Your task to perform on an android device: Add sony triple a to the cart on costco, then select checkout. Image 0: 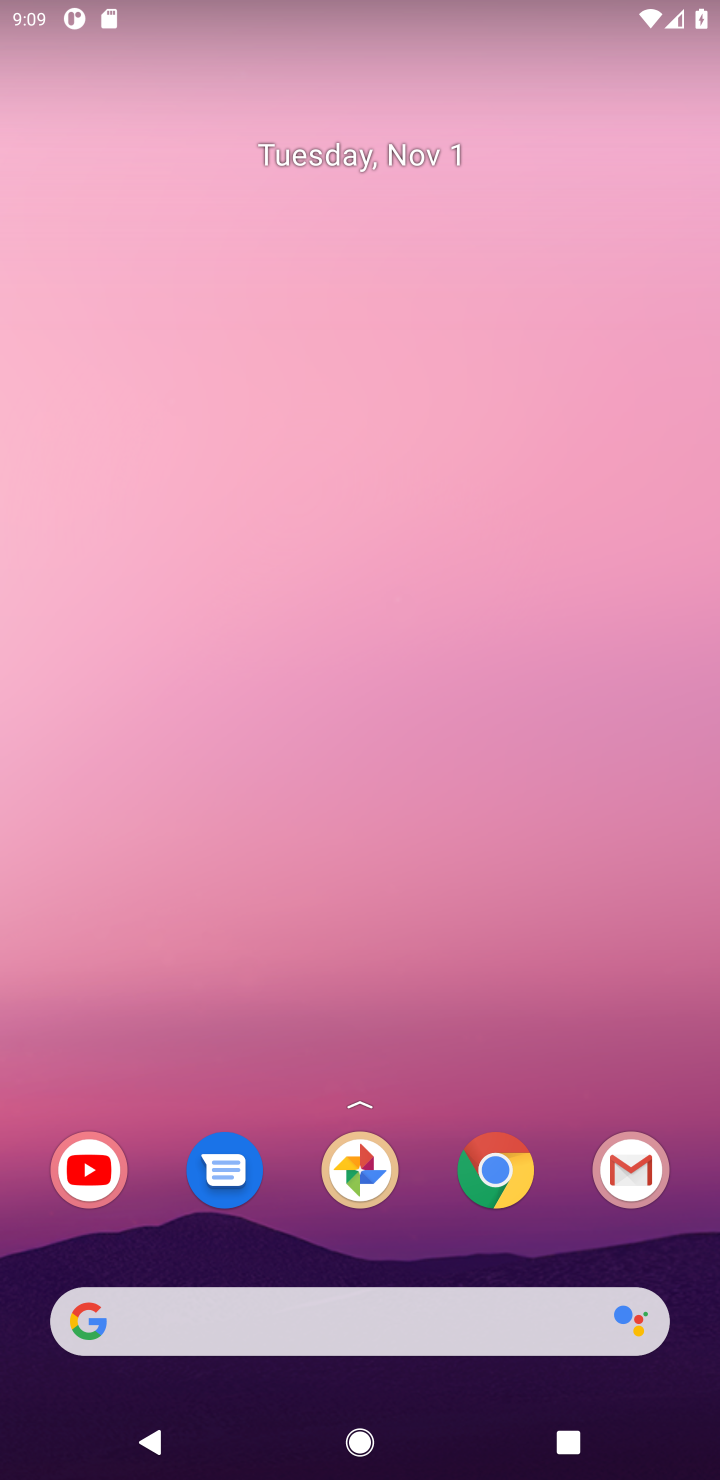
Step 0: click (505, 1194)
Your task to perform on an android device: Add sony triple a to the cart on costco, then select checkout. Image 1: 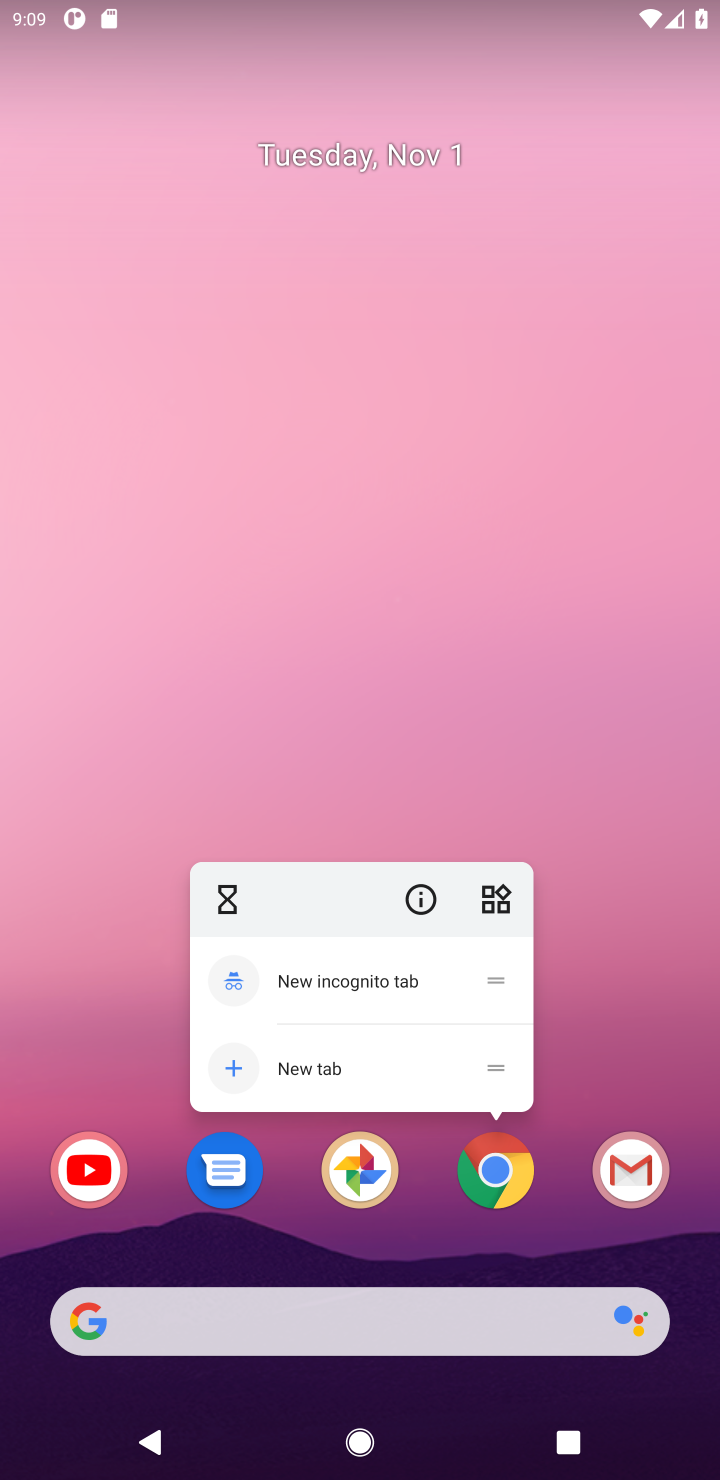
Step 1: click (496, 1201)
Your task to perform on an android device: Add sony triple a to the cart on costco, then select checkout. Image 2: 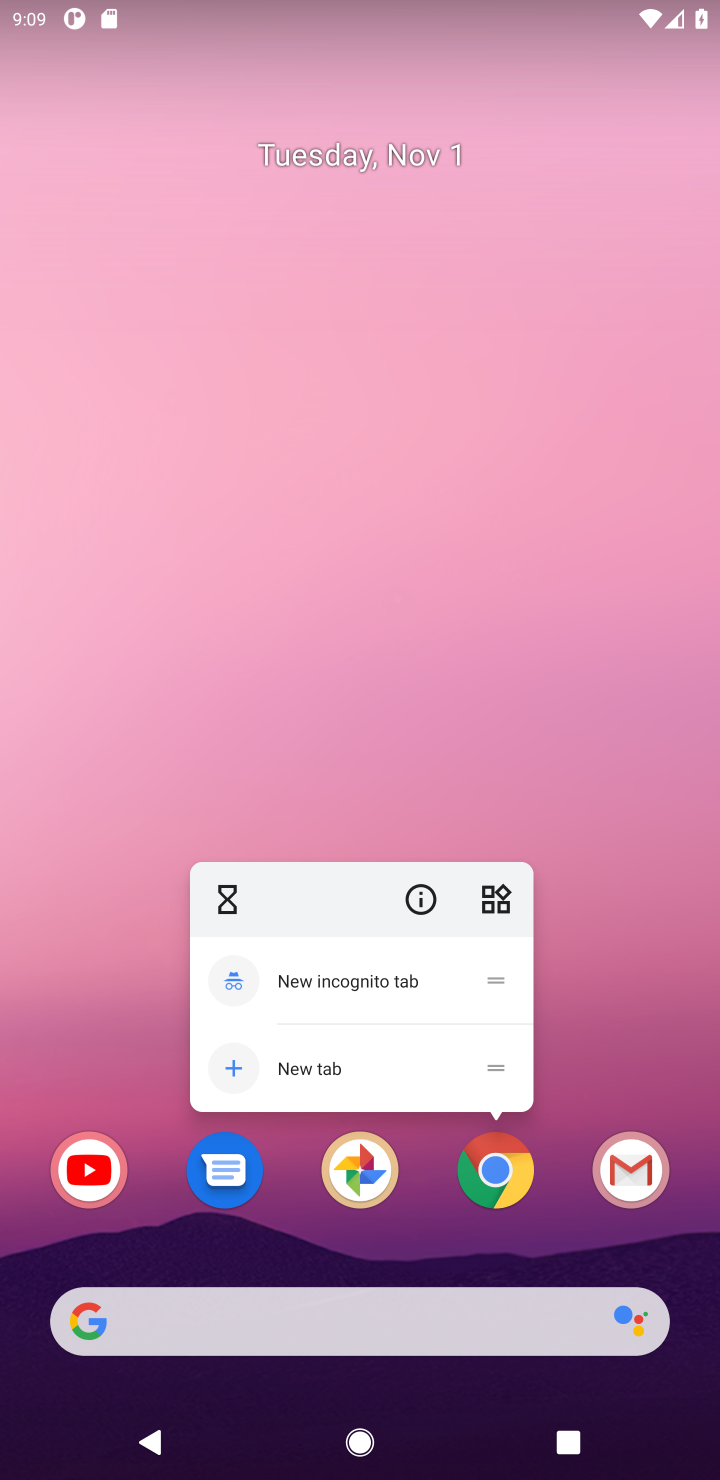
Step 2: click (495, 1168)
Your task to perform on an android device: Add sony triple a to the cart on costco, then select checkout. Image 3: 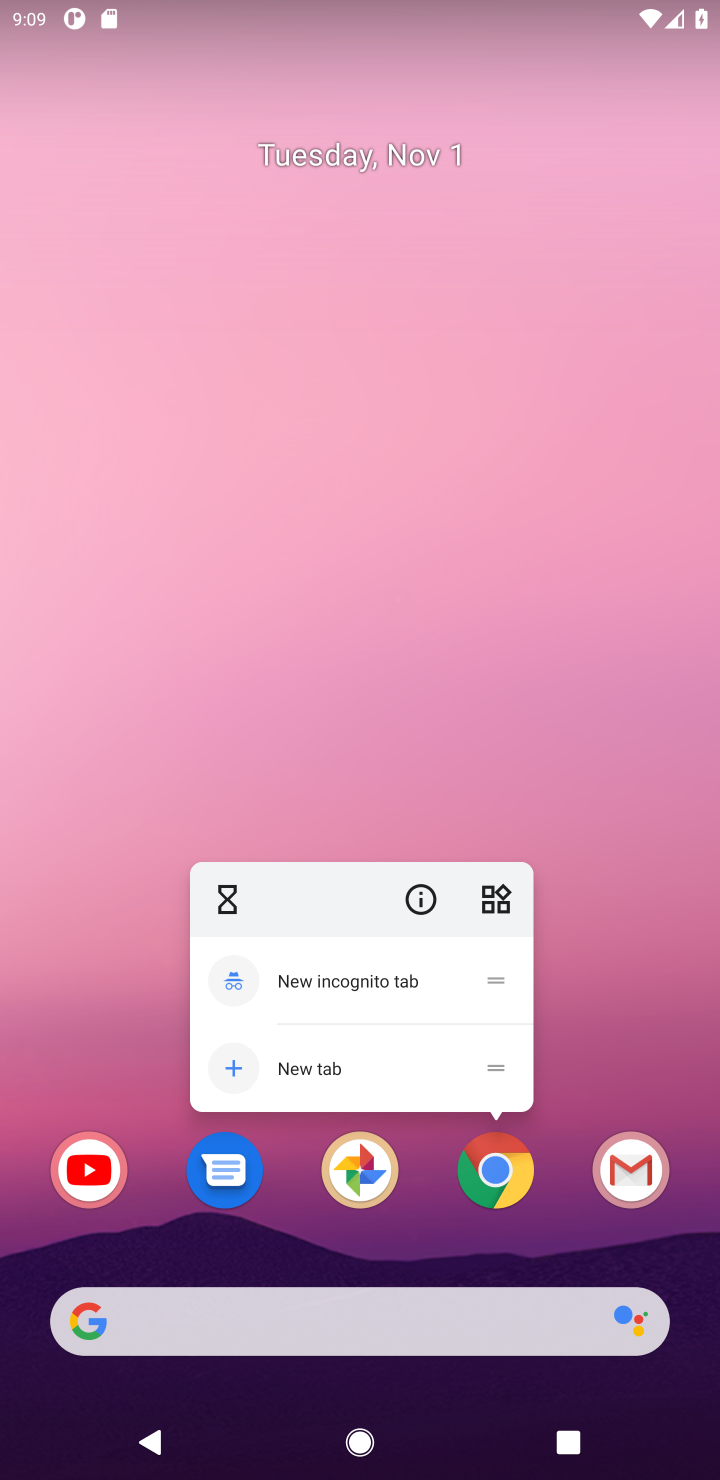
Step 3: click (493, 1185)
Your task to perform on an android device: Add sony triple a to the cart on costco, then select checkout. Image 4: 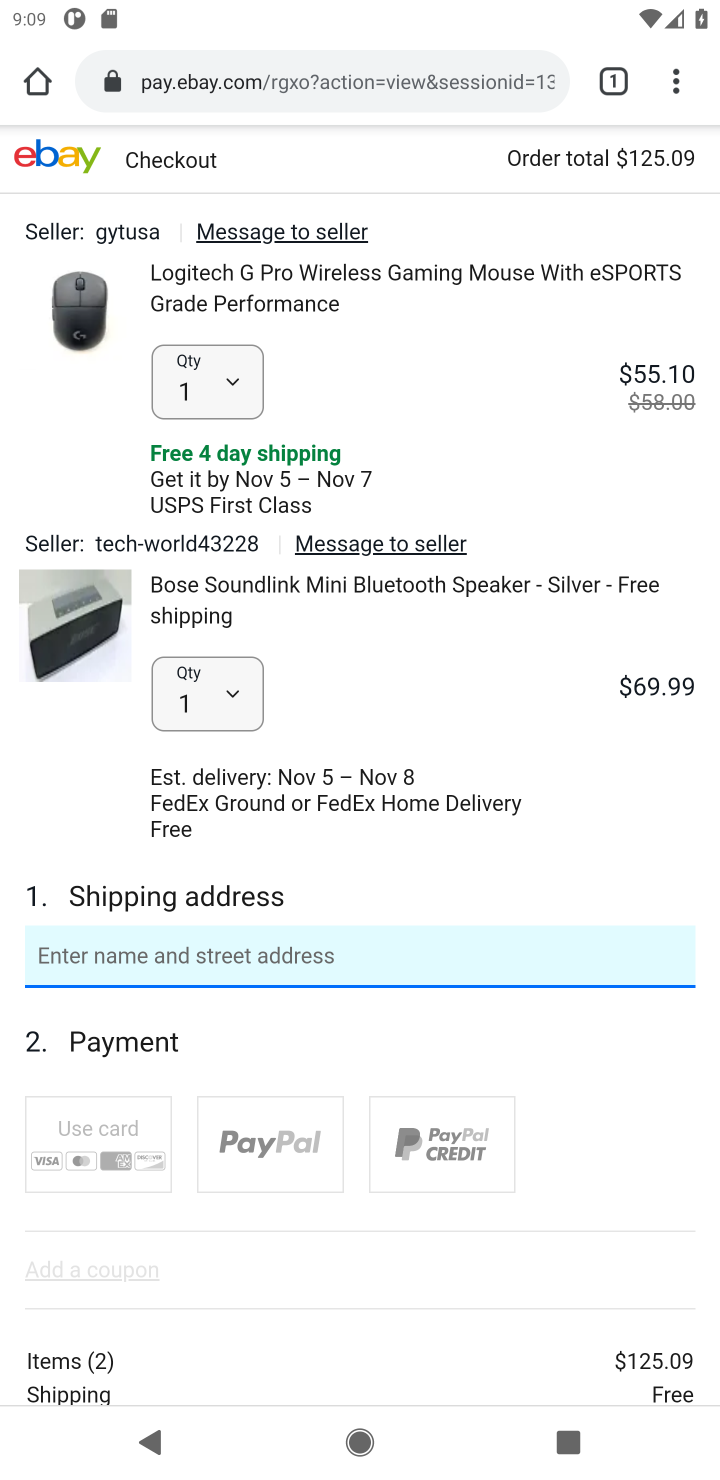
Step 4: click (343, 95)
Your task to perform on an android device: Add sony triple a to the cart on costco, then select checkout. Image 5: 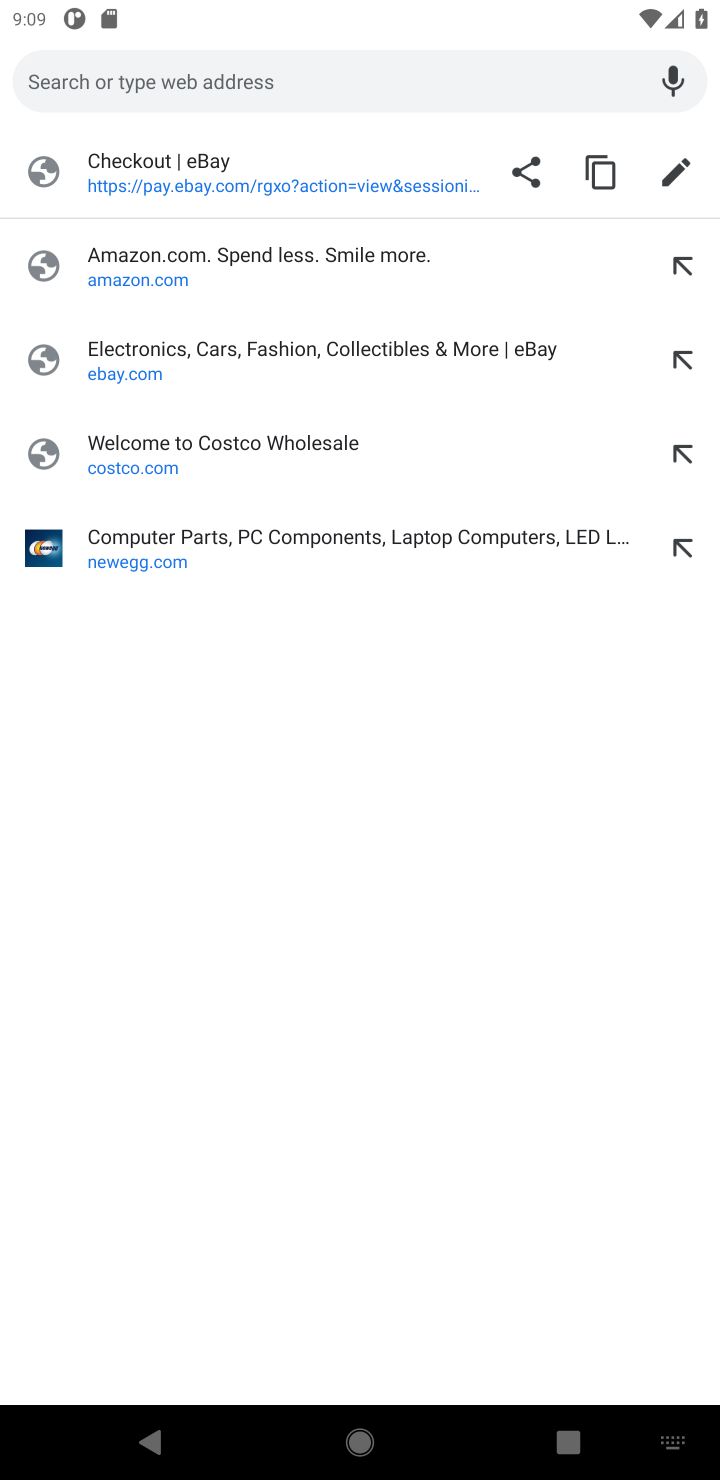
Step 5: type "costco"
Your task to perform on an android device: Add sony triple a to the cart on costco, then select checkout. Image 6: 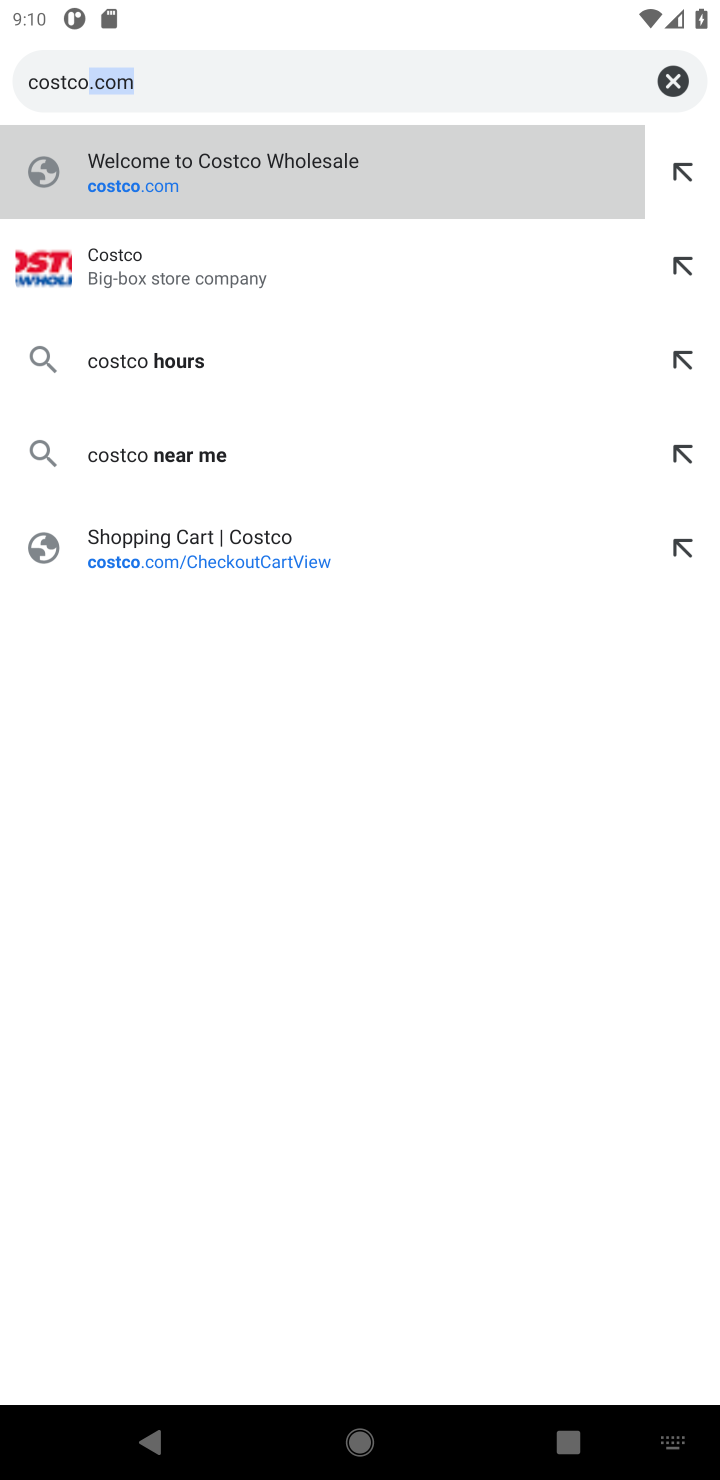
Step 6: press enter
Your task to perform on an android device: Add sony triple a to the cart on costco, then select checkout. Image 7: 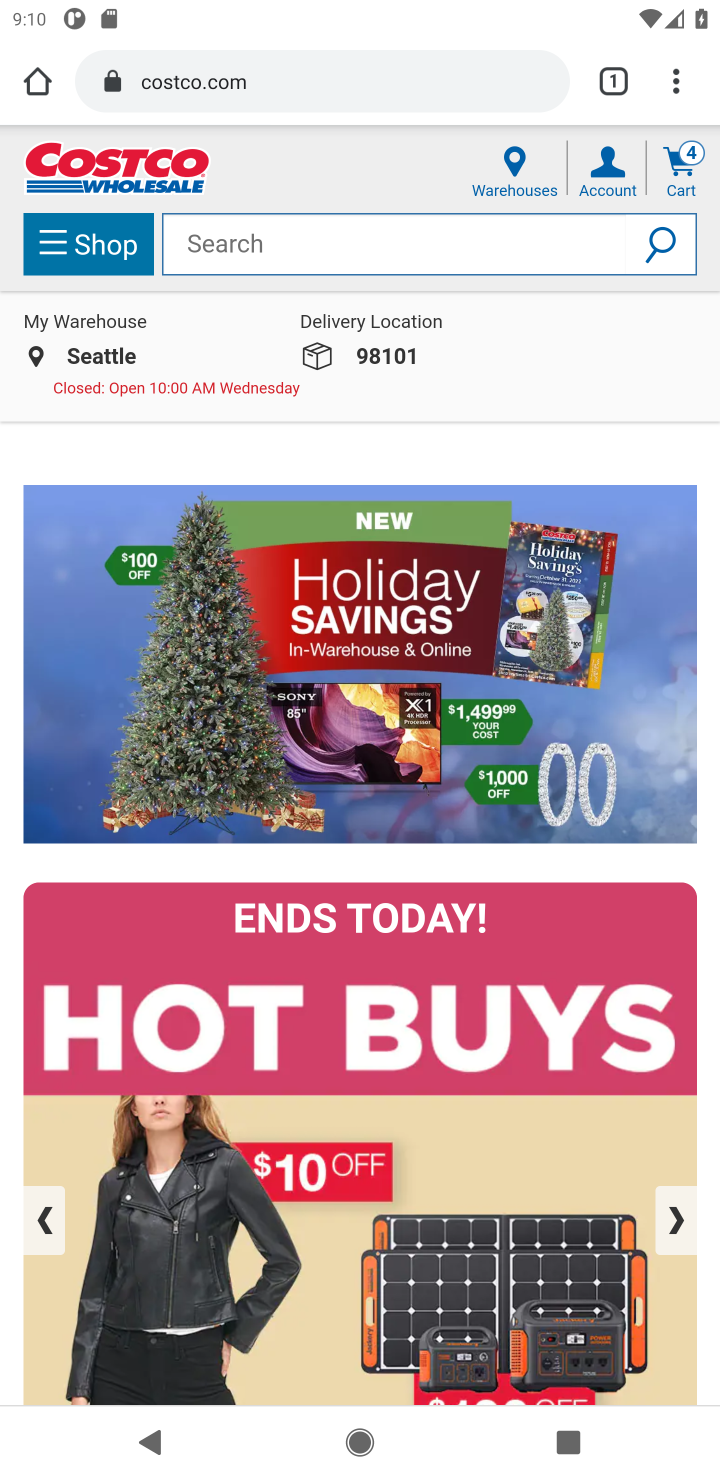
Step 7: click (430, 221)
Your task to perform on an android device: Add sony triple a to the cart on costco, then select checkout. Image 8: 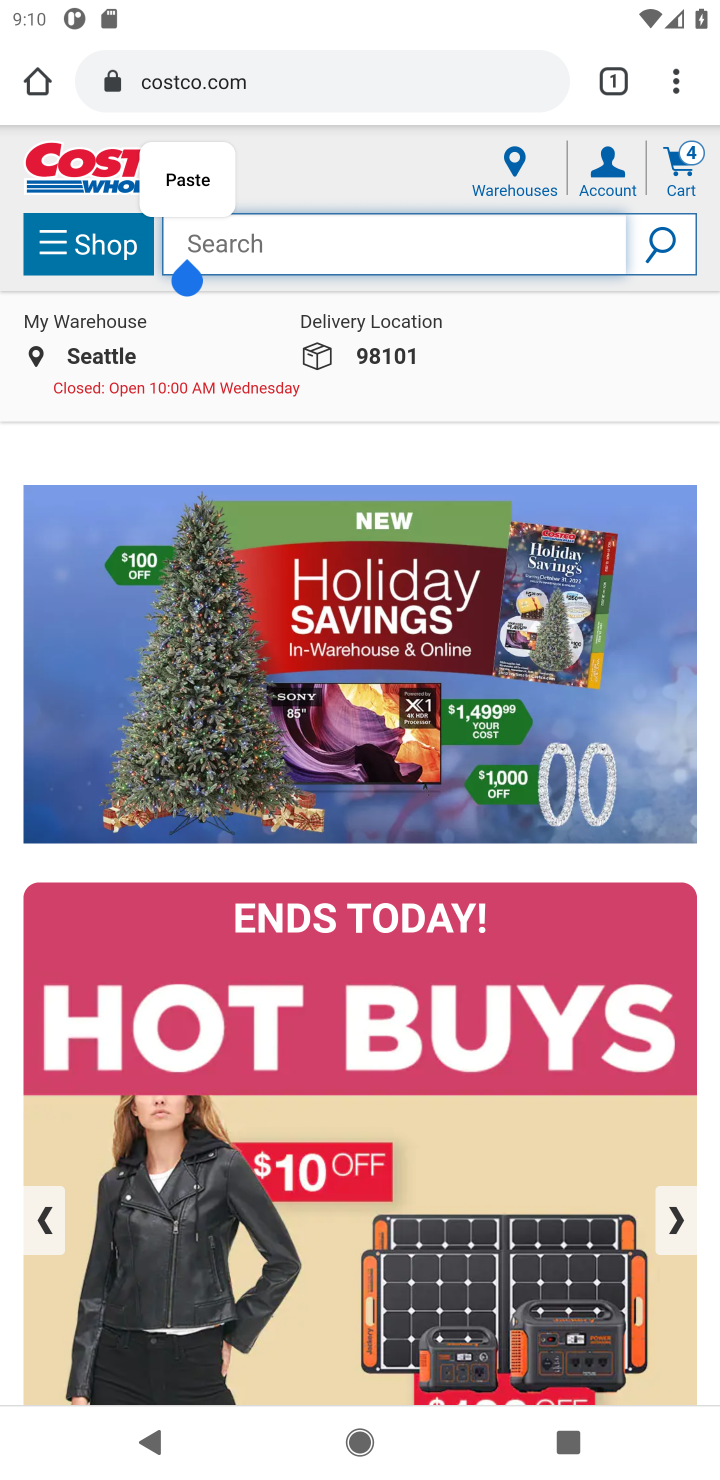
Step 8: type "sony triple a"
Your task to perform on an android device: Add sony triple a to the cart on costco, then select checkout. Image 9: 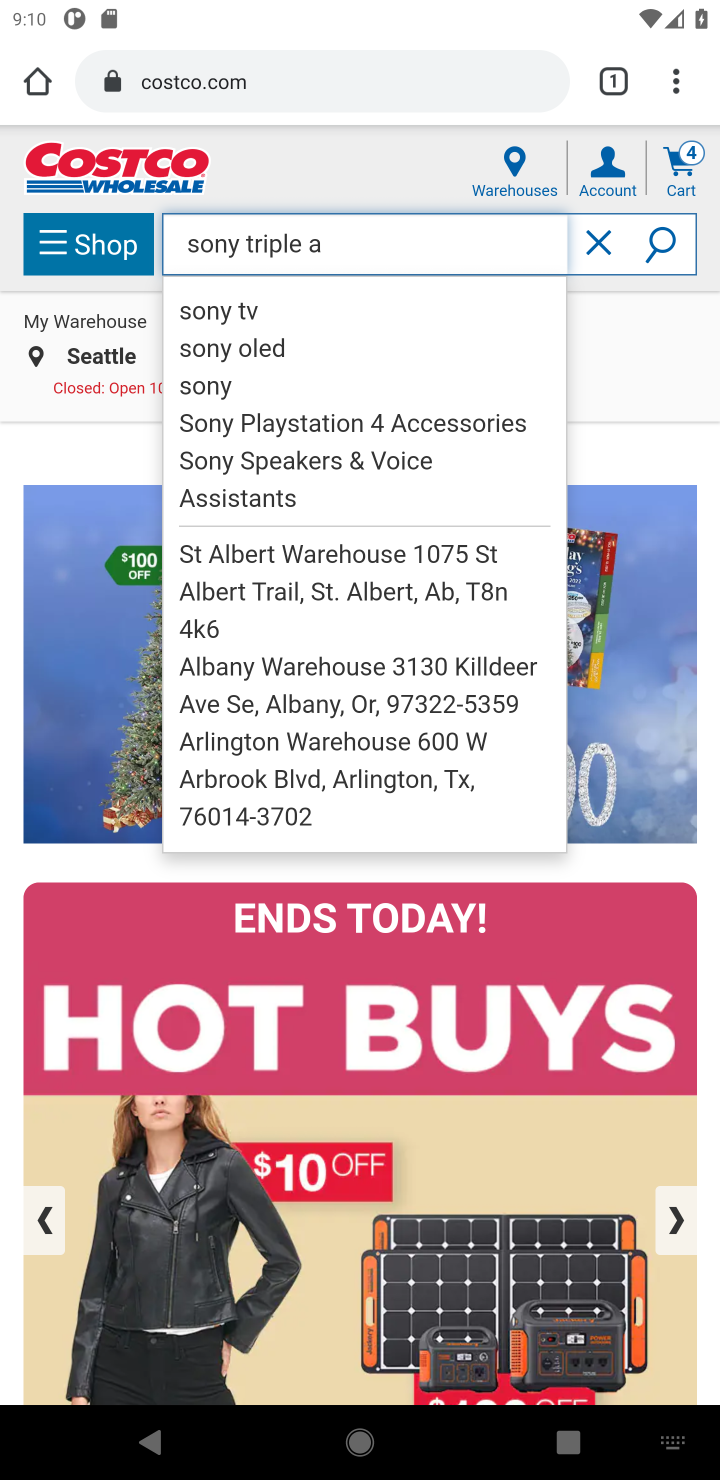
Step 9: press enter
Your task to perform on an android device: Add sony triple a to the cart on costco, then select checkout. Image 10: 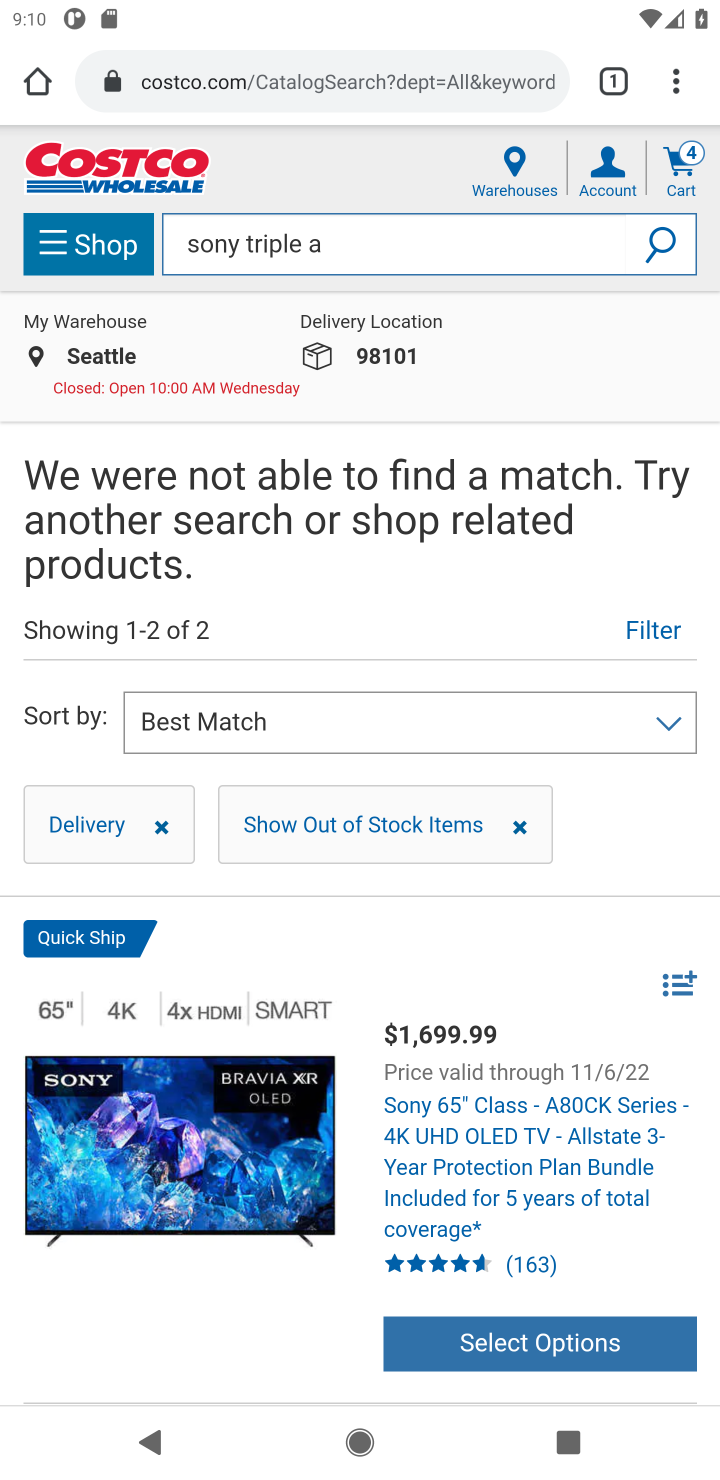
Step 10: task complete